Your task to perform on an android device: move an email to a new category in the gmail app Image 0: 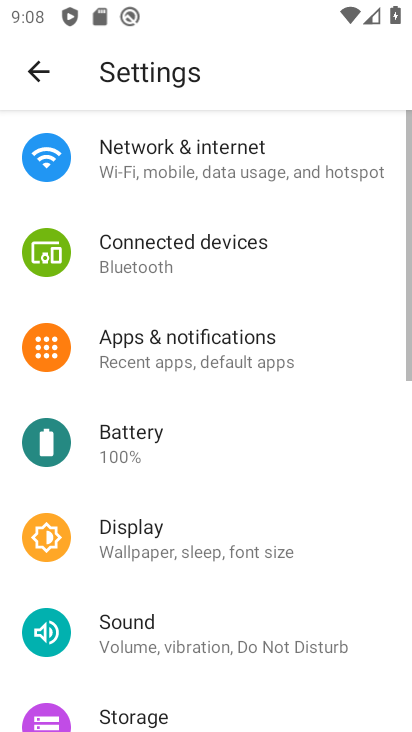
Step 0: press back button
Your task to perform on an android device: move an email to a new category in the gmail app Image 1: 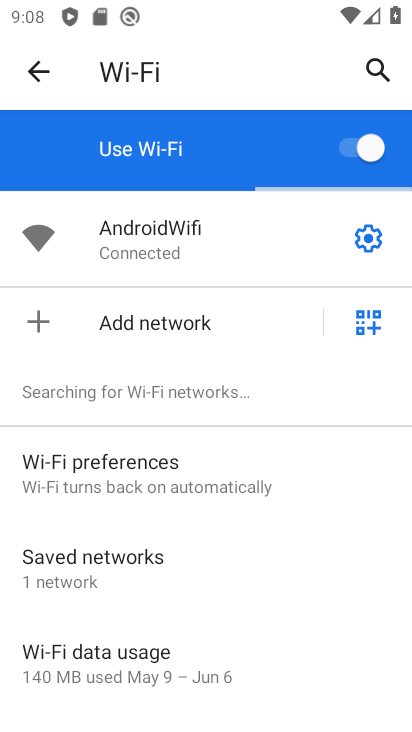
Step 1: press back button
Your task to perform on an android device: move an email to a new category in the gmail app Image 2: 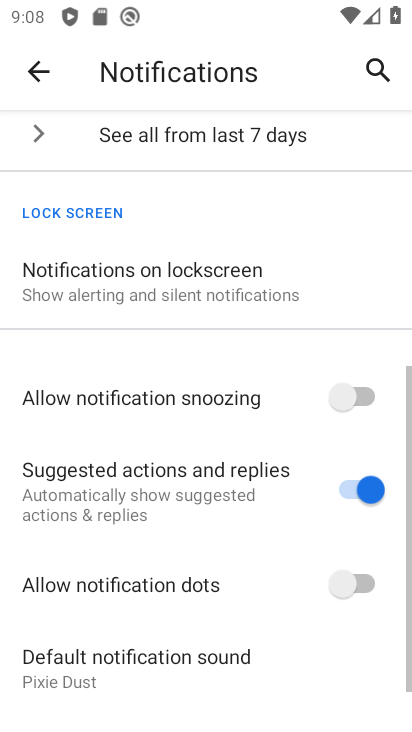
Step 2: press back button
Your task to perform on an android device: move an email to a new category in the gmail app Image 3: 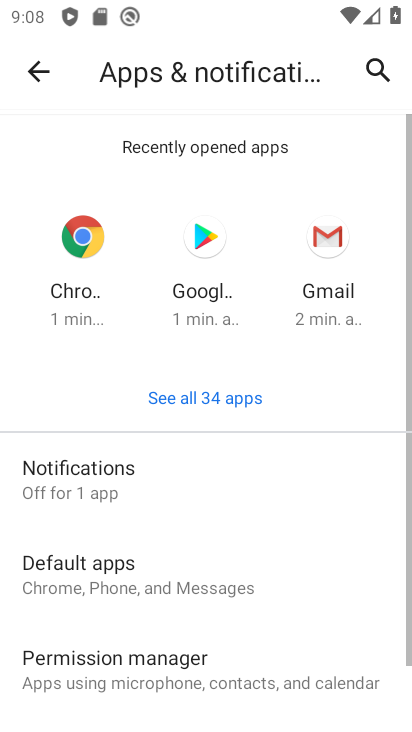
Step 3: press back button
Your task to perform on an android device: move an email to a new category in the gmail app Image 4: 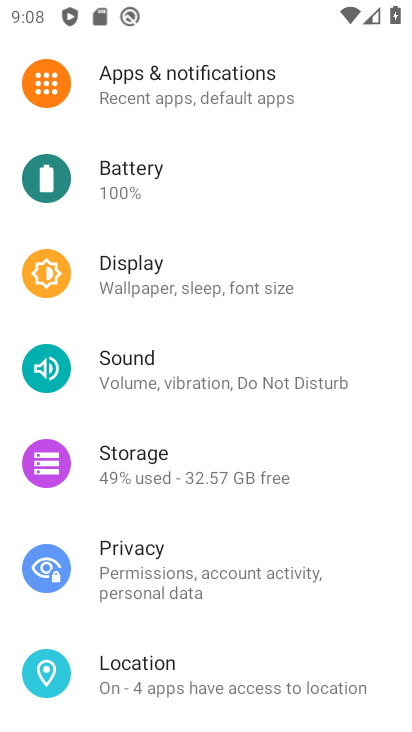
Step 4: press back button
Your task to perform on an android device: move an email to a new category in the gmail app Image 5: 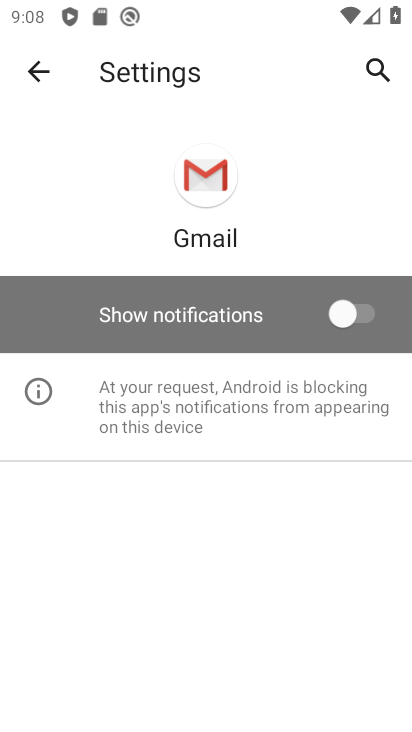
Step 5: click (32, 72)
Your task to perform on an android device: move an email to a new category in the gmail app Image 6: 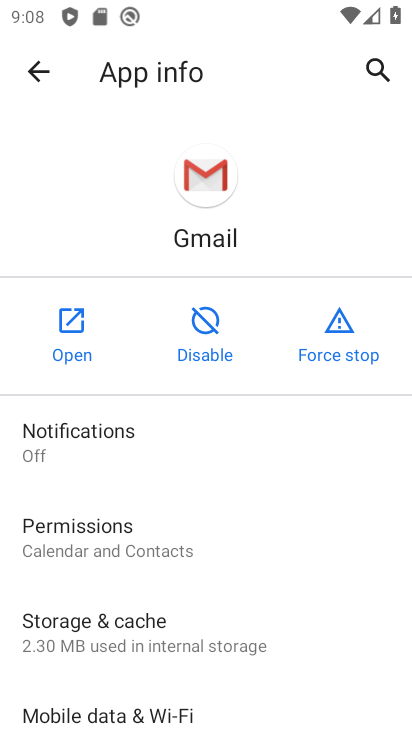
Step 6: press back button
Your task to perform on an android device: move an email to a new category in the gmail app Image 7: 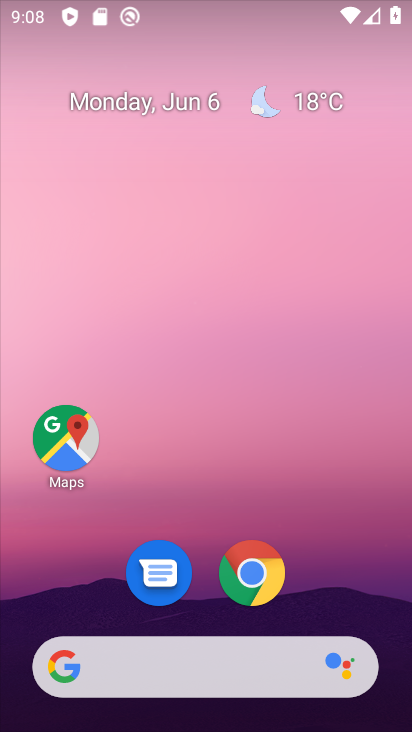
Step 7: drag from (207, 439) to (236, 53)
Your task to perform on an android device: move an email to a new category in the gmail app Image 8: 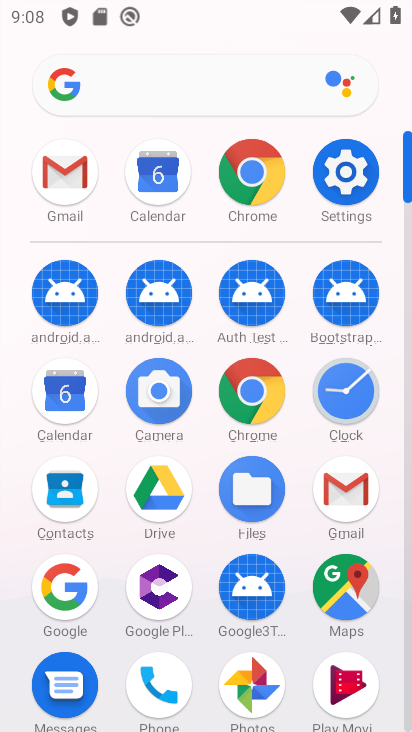
Step 8: click (60, 159)
Your task to perform on an android device: move an email to a new category in the gmail app Image 9: 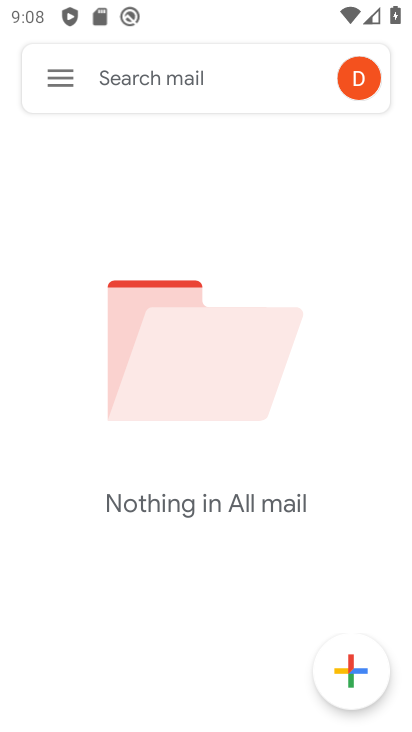
Step 9: task complete